Your task to perform on an android device: turn on bluetooth scan Image 0: 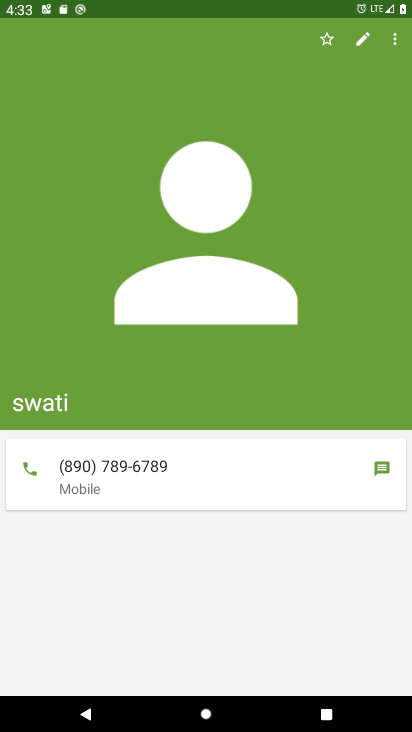
Step 0: press home button
Your task to perform on an android device: turn on bluetooth scan Image 1: 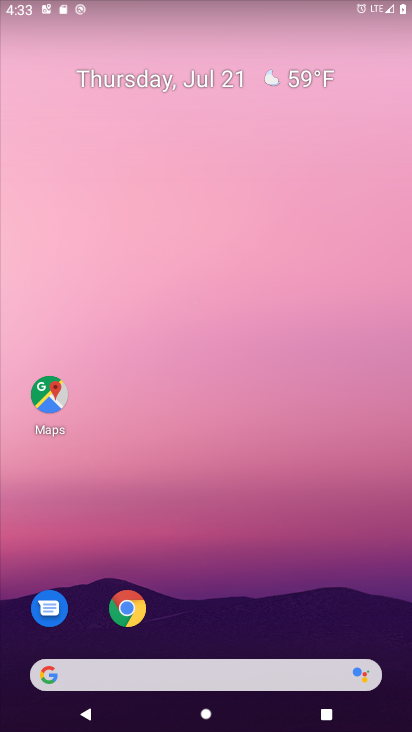
Step 1: drag from (273, 677) to (309, 110)
Your task to perform on an android device: turn on bluetooth scan Image 2: 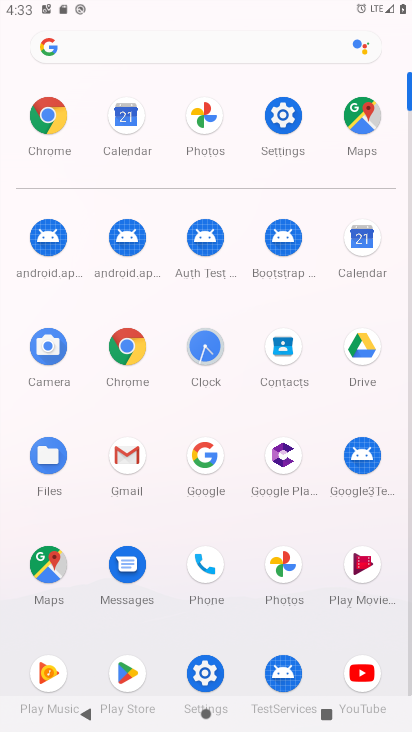
Step 2: click (274, 108)
Your task to perform on an android device: turn on bluetooth scan Image 3: 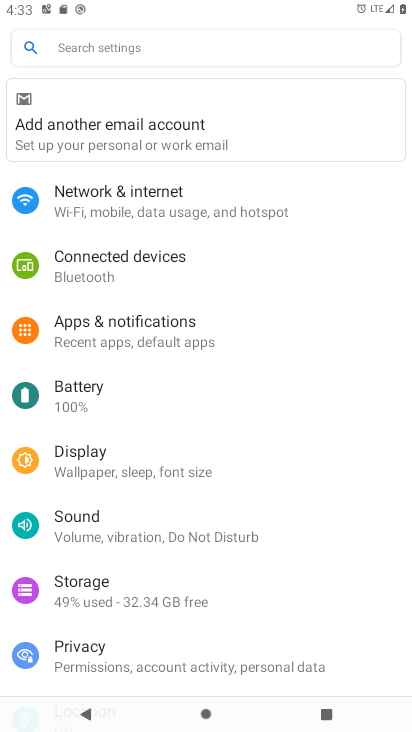
Step 3: drag from (132, 647) to (154, 305)
Your task to perform on an android device: turn on bluetooth scan Image 4: 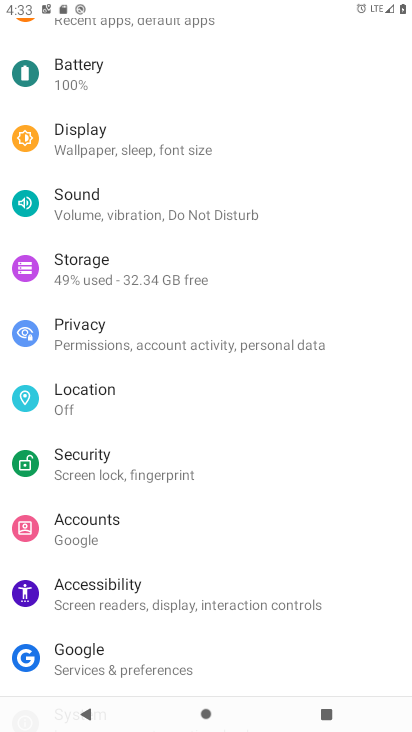
Step 4: click (100, 409)
Your task to perform on an android device: turn on bluetooth scan Image 5: 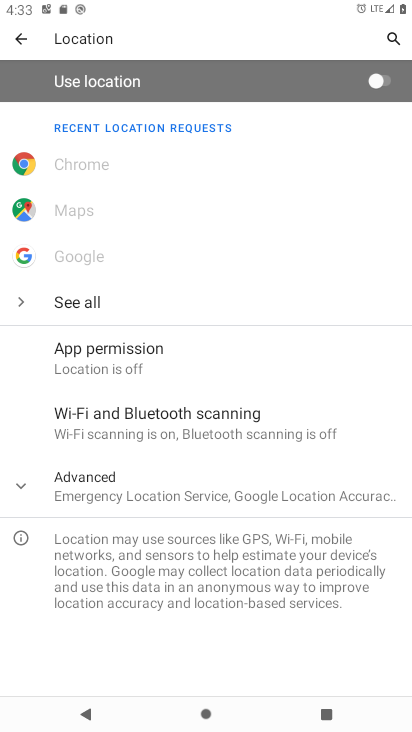
Step 5: click (187, 489)
Your task to perform on an android device: turn on bluetooth scan Image 6: 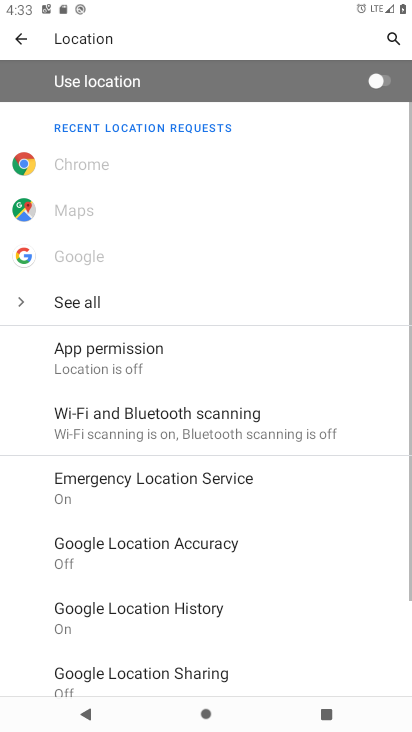
Step 6: click (181, 437)
Your task to perform on an android device: turn on bluetooth scan Image 7: 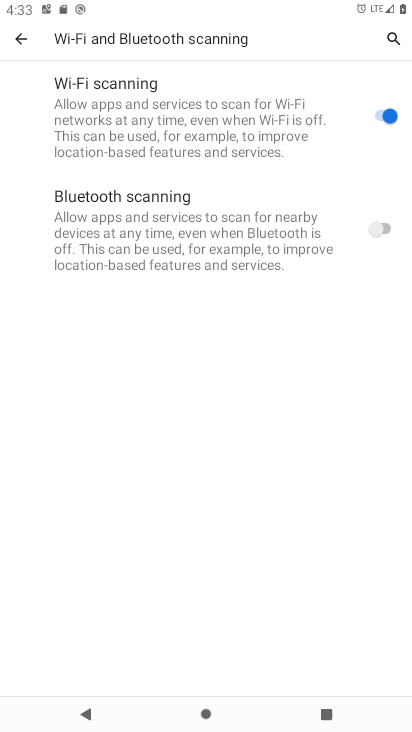
Step 7: click (384, 227)
Your task to perform on an android device: turn on bluetooth scan Image 8: 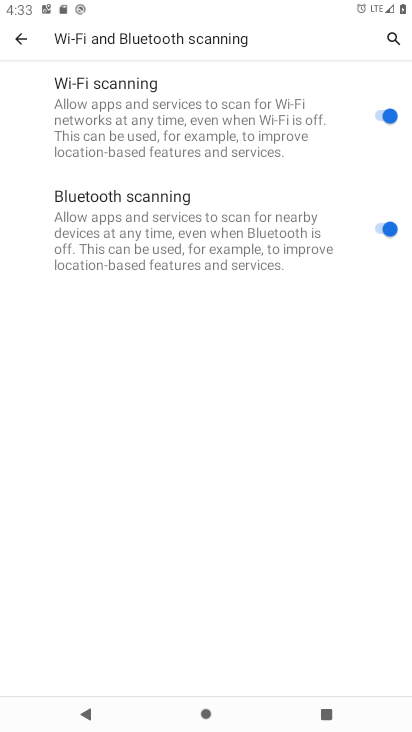
Step 8: task complete